Your task to perform on an android device: Check the weather Image 0: 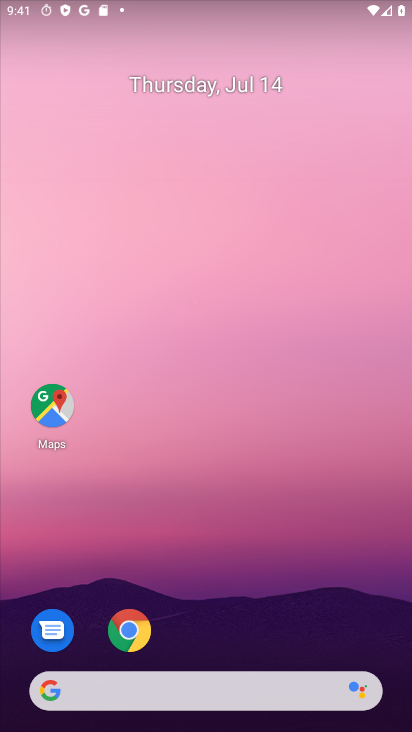
Step 0: click (81, 689)
Your task to perform on an android device: Check the weather Image 1: 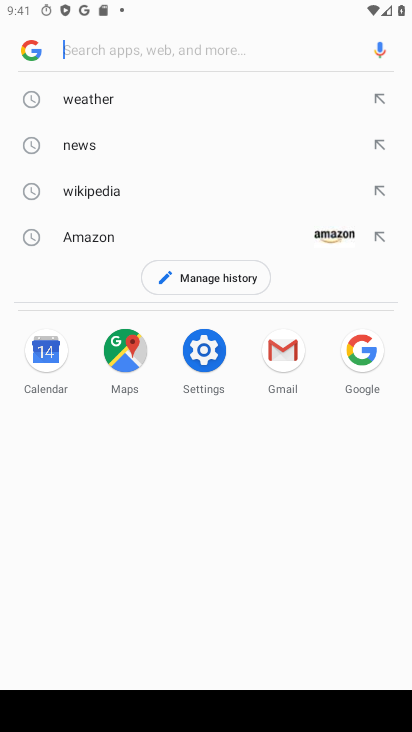
Step 1: click (87, 94)
Your task to perform on an android device: Check the weather Image 2: 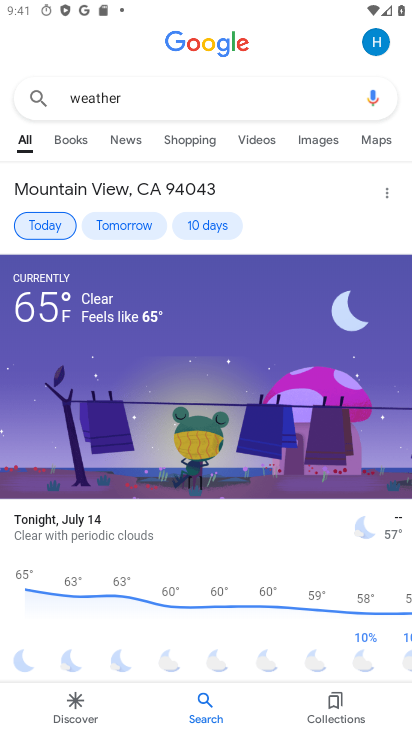
Step 2: task complete